Your task to perform on an android device: Go to display settings Image 0: 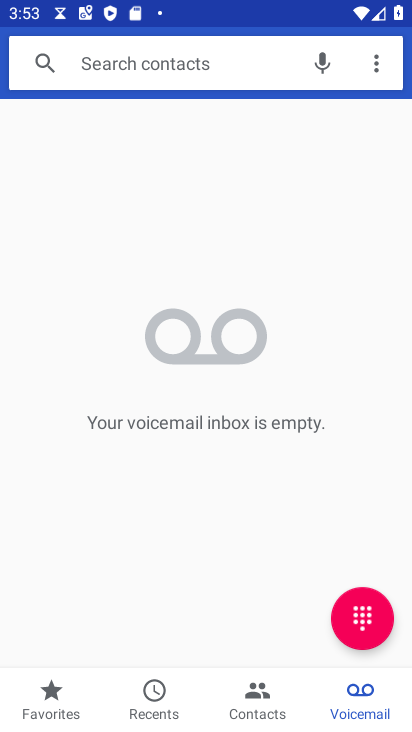
Step 0: press home button
Your task to perform on an android device: Go to display settings Image 1: 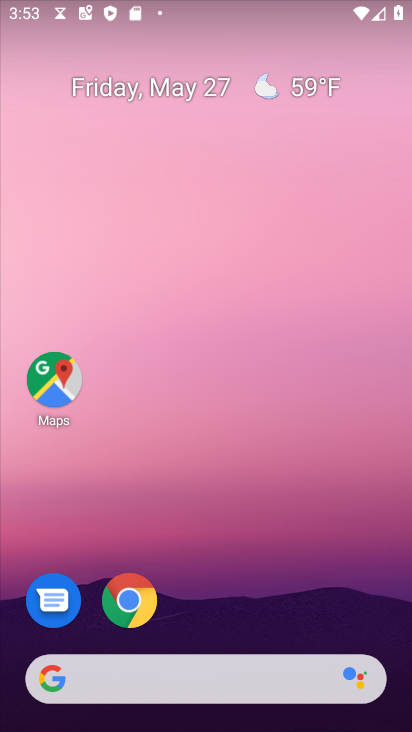
Step 1: drag from (279, 551) to (211, 188)
Your task to perform on an android device: Go to display settings Image 2: 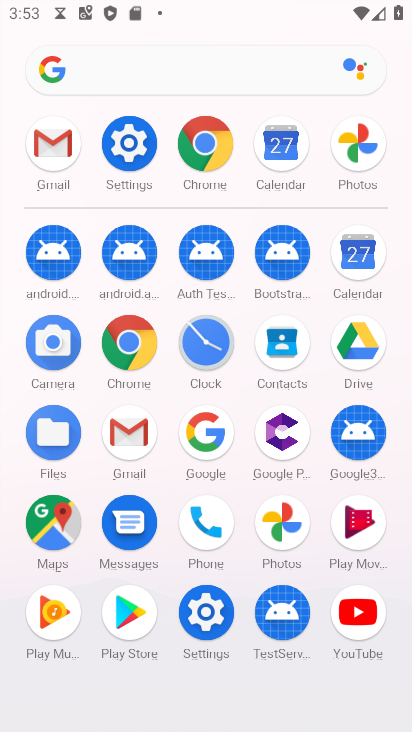
Step 2: click (204, 610)
Your task to perform on an android device: Go to display settings Image 3: 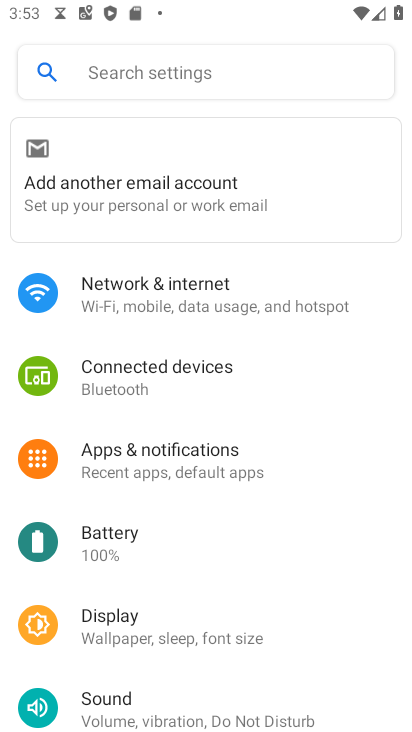
Step 3: click (133, 635)
Your task to perform on an android device: Go to display settings Image 4: 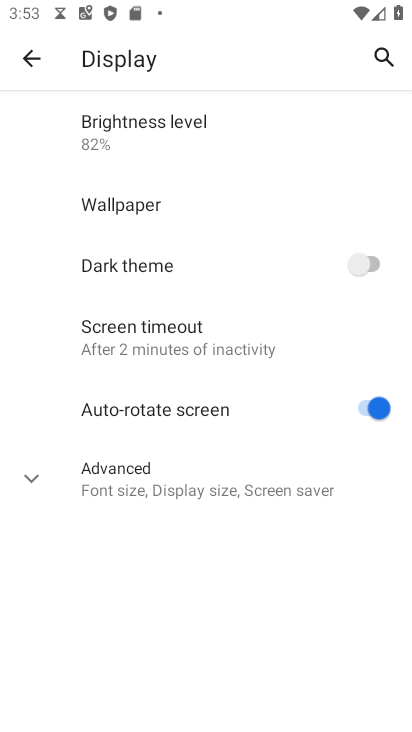
Step 4: task complete